Your task to perform on an android device: Open network settings Image 0: 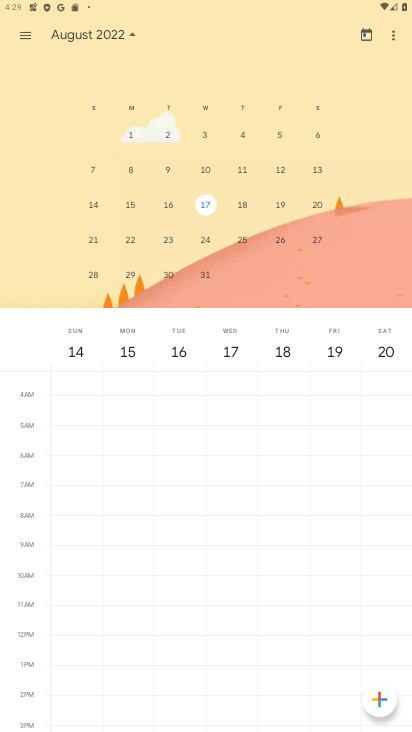
Step 0: press home button
Your task to perform on an android device: Open network settings Image 1: 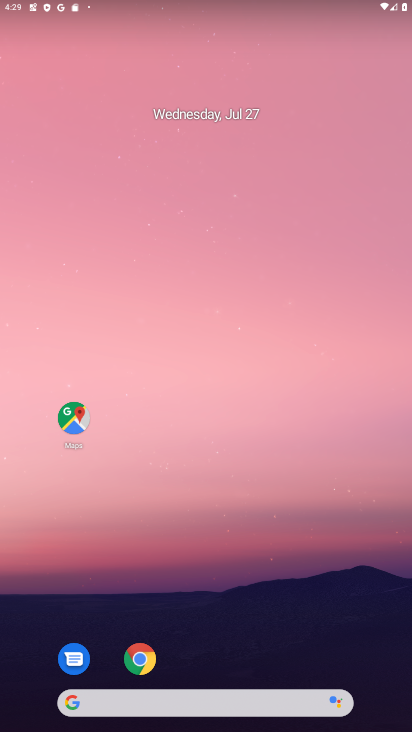
Step 1: drag from (284, 645) to (238, 106)
Your task to perform on an android device: Open network settings Image 2: 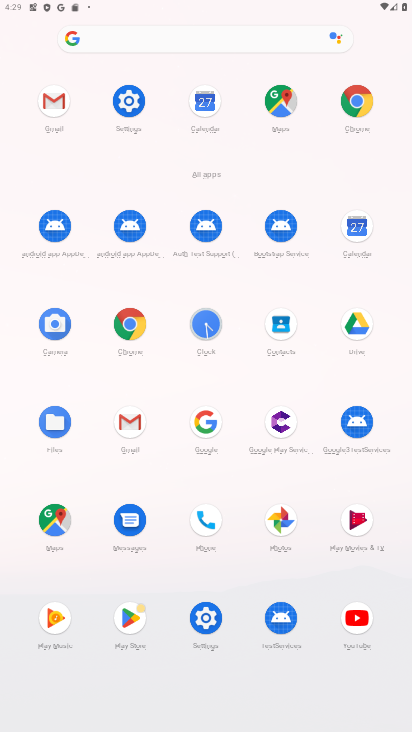
Step 2: click (133, 98)
Your task to perform on an android device: Open network settings Image 3: 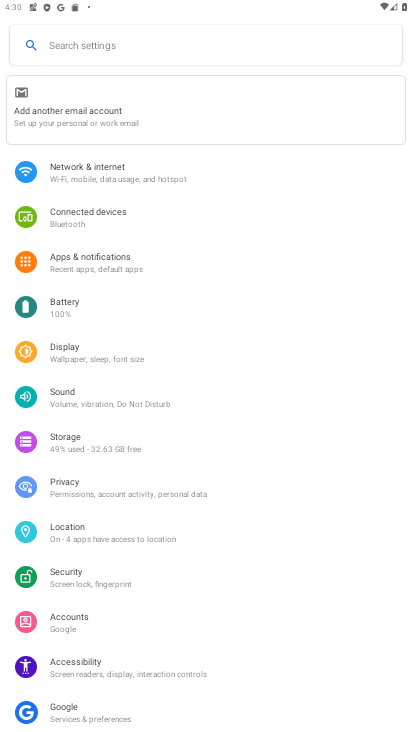
Step 3: click (144, 181)
Your task to perform on an android device: Open network settings Image 4: 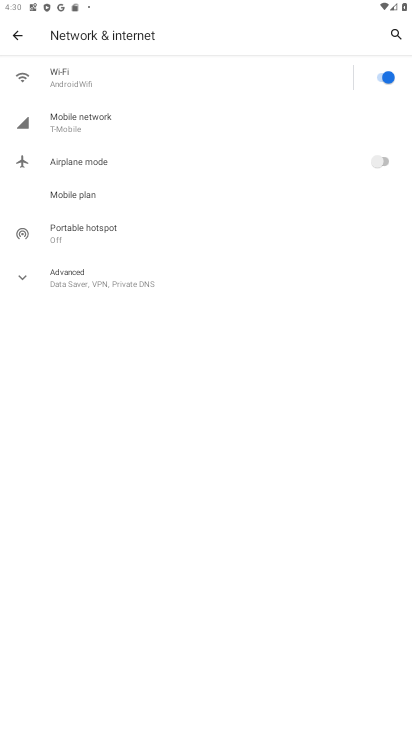
Step 4: task complete